Your task to perform on an android device: toggle translation in the chrome app Image 0: 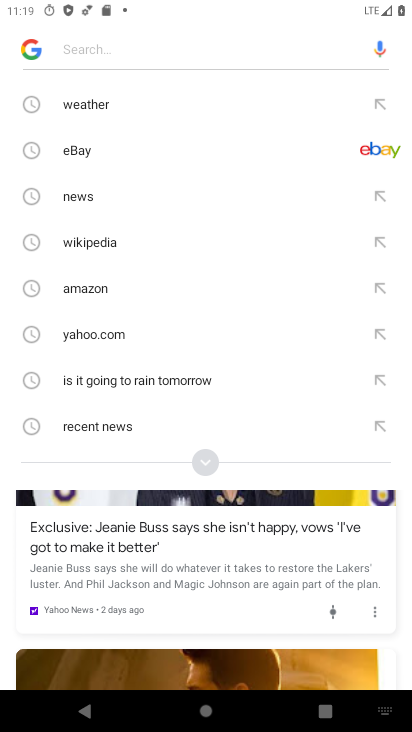
Step 0: press home button
Your task to perform on an android device: toggle translation in the chrome app Image 1: 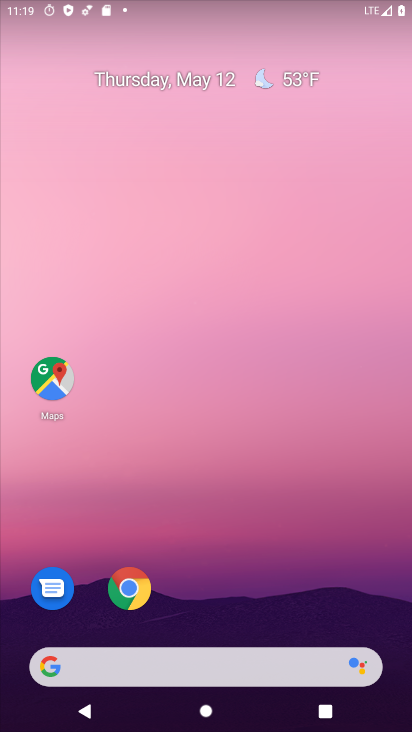
Step 1: click (130, 580)
Your task to perform on an android device: toggle translation in the chrome app Image 2: 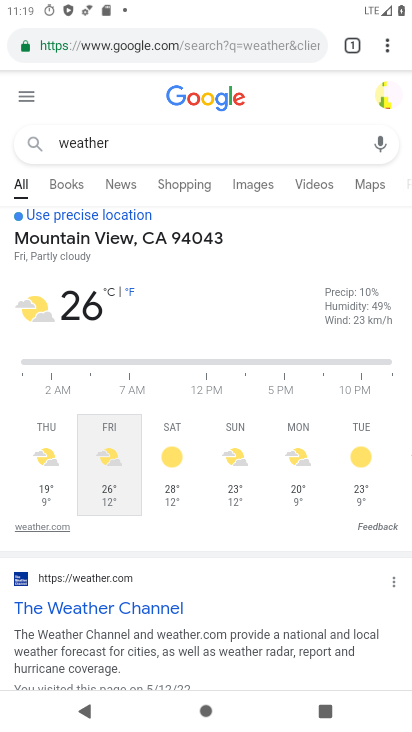
Step 2: click (387, 39)
Your task to perform on an android device: toggle translation in the chrome app Image 3: 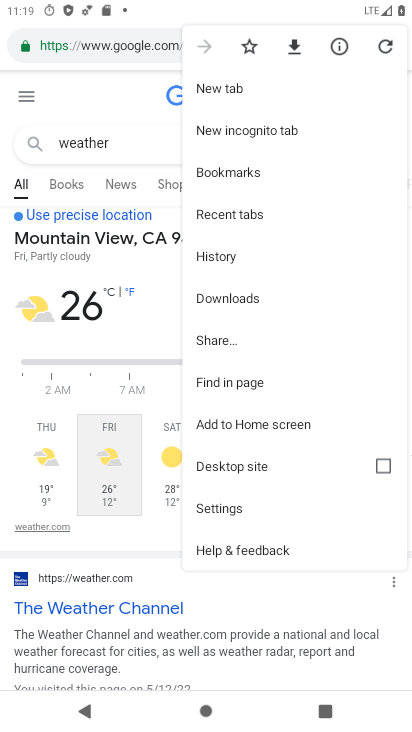
Step 3: click (246, 517)
Your task to perform on an android device: toggle translation in the chrome app Image 4: 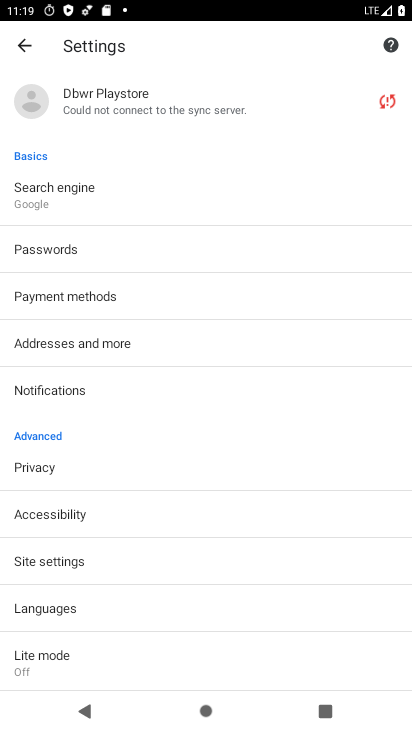
Step 4: drag from (252, 615) to (278, 346)
Your task to perform on an android device: toggle translation in the chrome app Image 5: 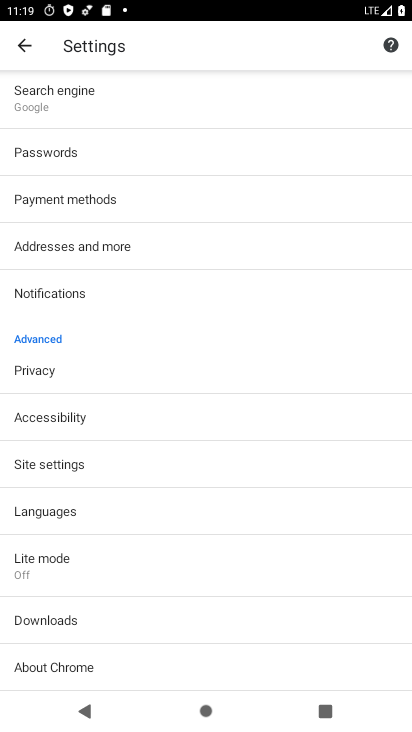
Step 5: click (70, 507)
Your task to perform on an android device: toggle translation in the chrome app Image 6: 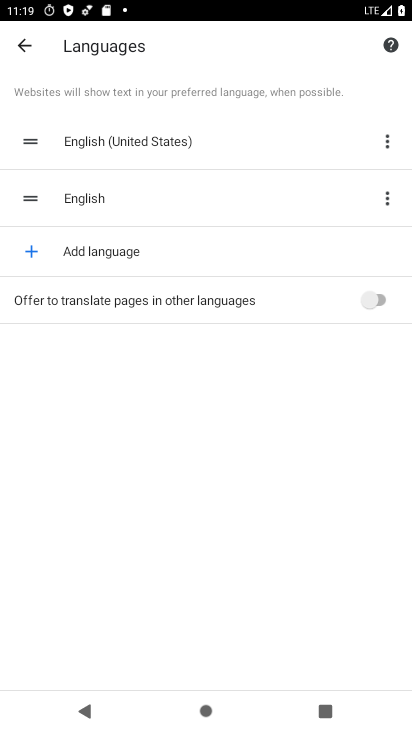
Step 6: click (382, 298)
Your task to perform on an android device: toggle translation in the chrome app Image 7: 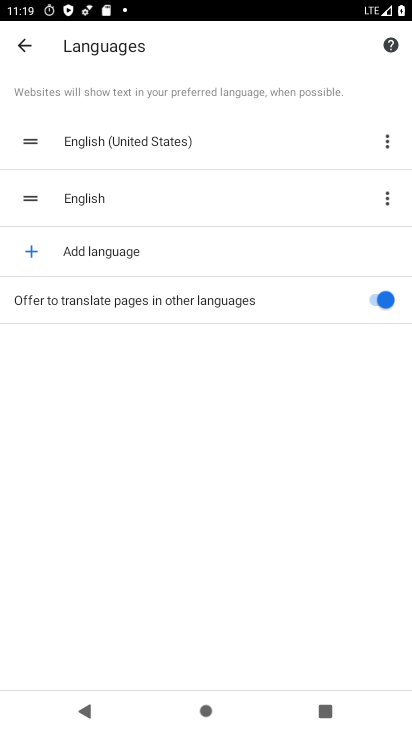
Step 7: task complete